Your task to perform on an android device: What does the iPhone 8 look like? Image 0: 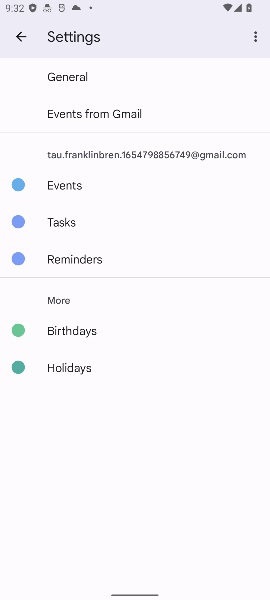
Step 0: press home button
Your task to perform on an android device: What does the iPhone 8 look like? Image 1: 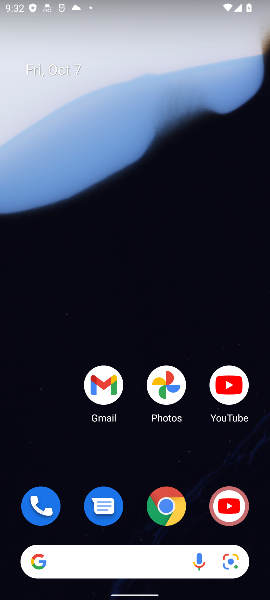
Step 1: click (166, 513)
Your task to perform on an android device: What does the iPhone 8 look like? Image 2: 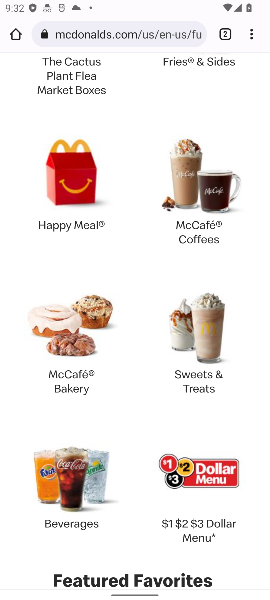
Step 2: click (138, 33)
Your task to perform on an android device: What does the iPhone 8 look like? Image 3: 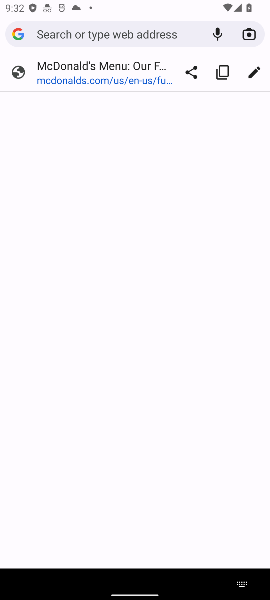
Step 3: type "What does the iPhone 8 look like"
Your task to perform on an android device: What does the iPhone 8 look like? Image 4: 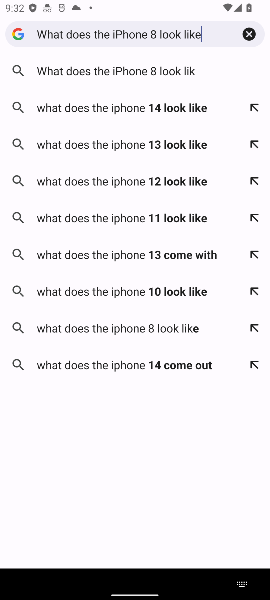
Step 4: press enter
Your task to perform on an android device: What does the iPhone 8 look like? Image 5: 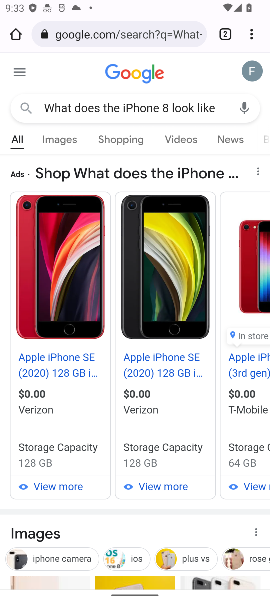
Step 5: task complete